Your task to perform on an android device: Open my contact list Image 0: 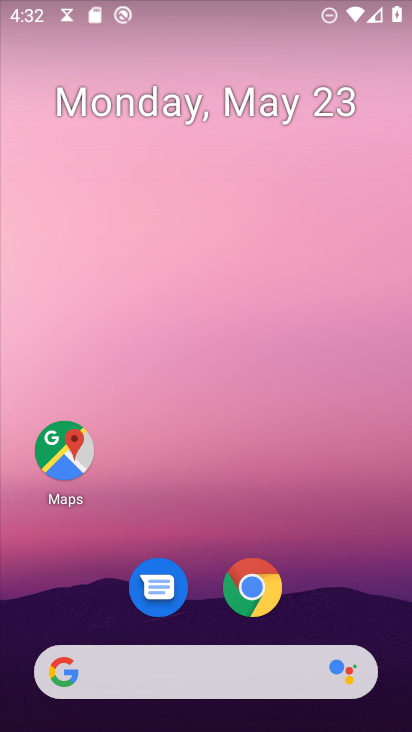
Step 0: drag from (216, 591) to (268, 67)
Your task to perform on an android device: Open my contact list Image 1: 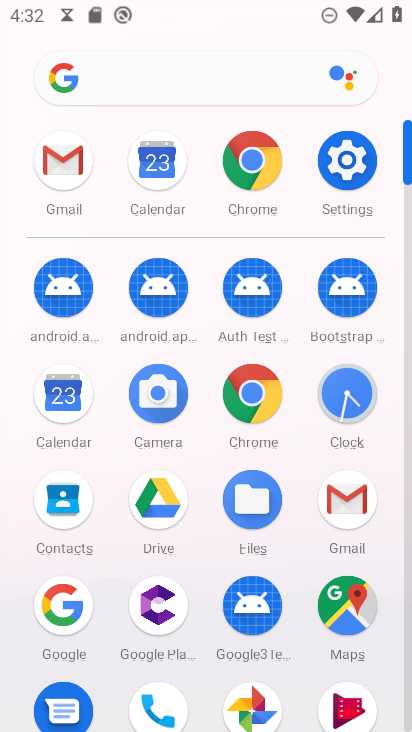
Step 1: click (58, 512)
Your task to perform on an android device: Open my contact list Image 2: 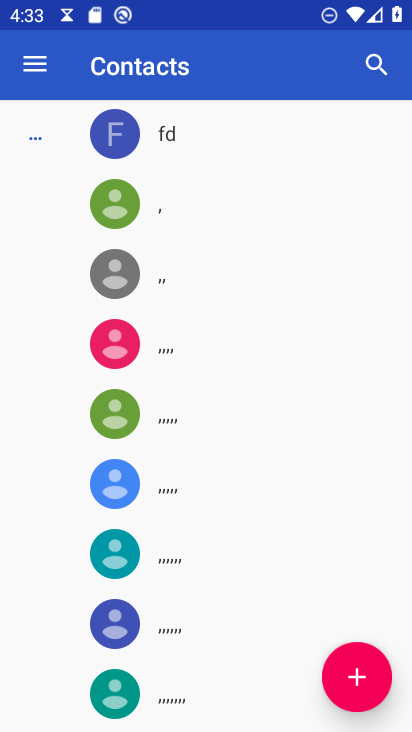
Step 2: task complete